Your task to perform on an android device: Check the news Image 0: 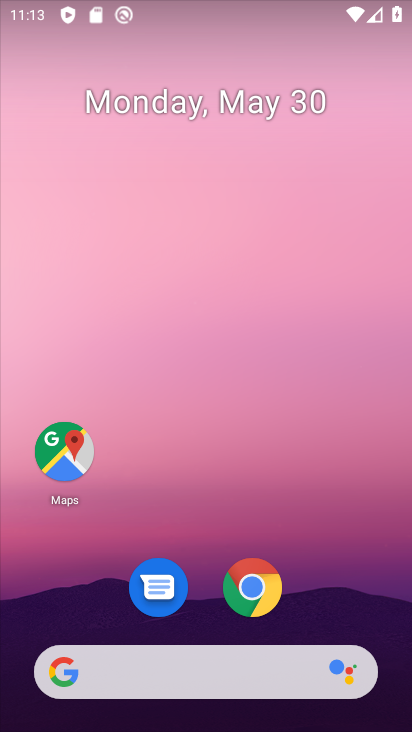
Step 0: click (165, 661)
Your task to perform on an android device: Check the news Image 1: 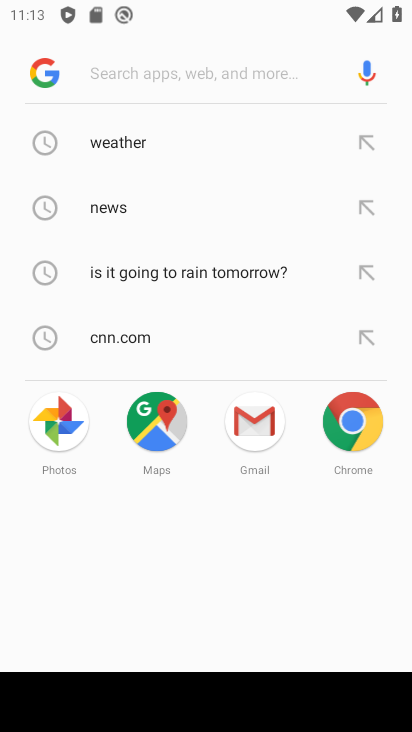
Step 1: type "news"
Your task to perform on an android device: Check the news Image 2: 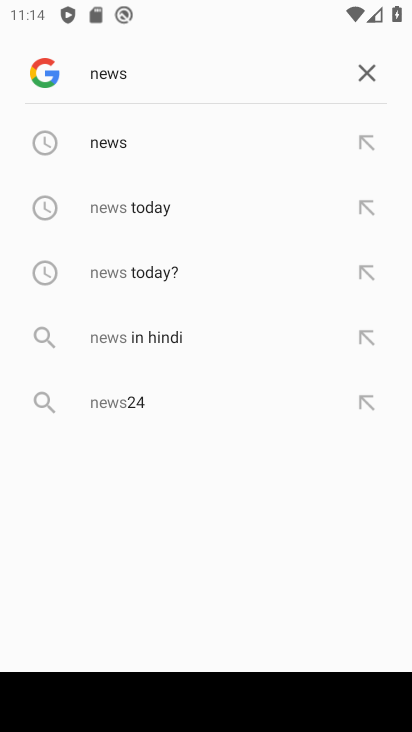
Step 2: click (96, 146)
Your task to perform on an android device: Check the news Image 3: 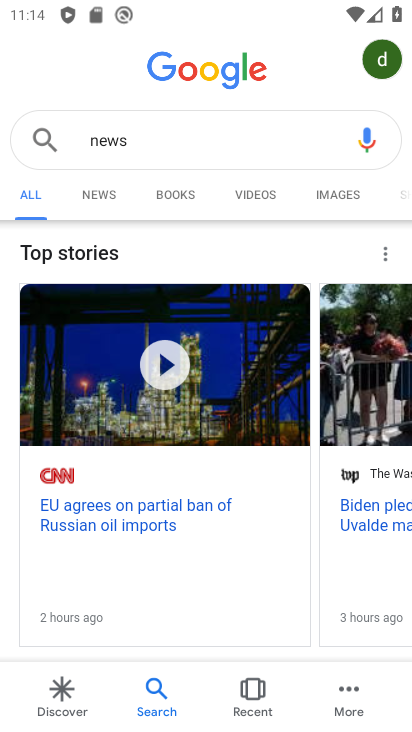
Step 3: click (86, 192)
Your task to perform on an android device: Check the news Image 4: 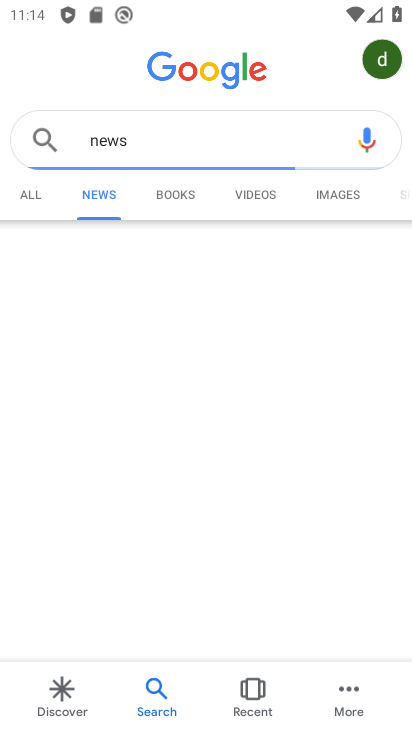
Step 4: task complete